Your task to perform on an android device: Open notification settings Image 0: 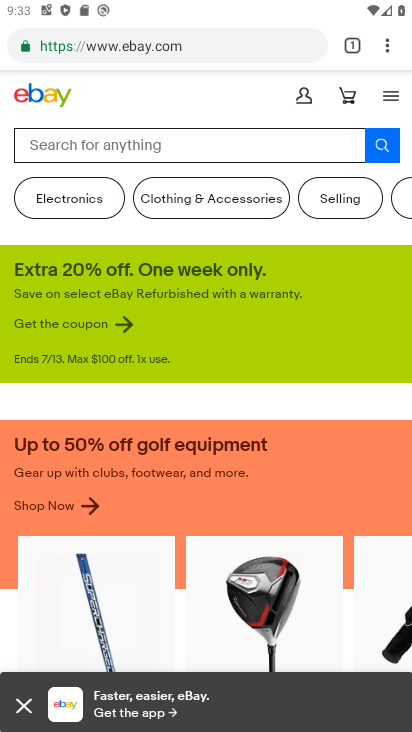
Step 0: press home button
Your task to perform on an android device: Open notification settings Image 1: 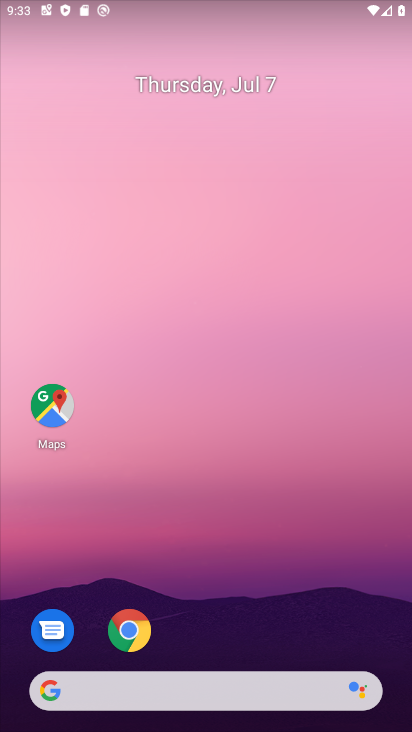
Step 1: drag from (182, 678) to (182, 38)
Your task to perform on an android device: Open notification settings Image 2: 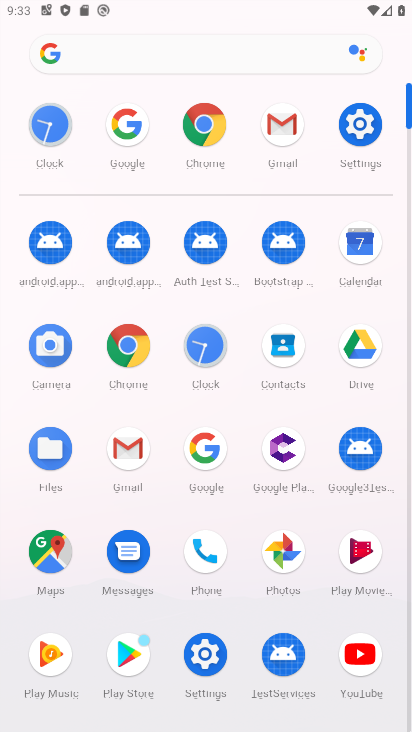
Step 2: click (357, 125)
Your task to perform on an android device: Open notification settings Image 3: 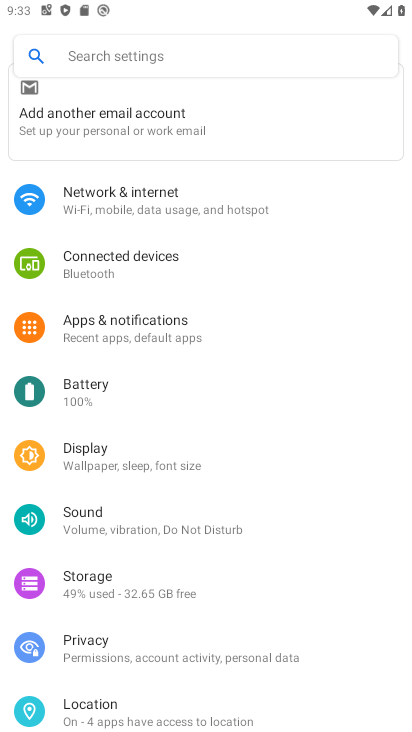
Step 3: click (101, 328)
Your task to perform on an android device: Open notification settings Image 4: 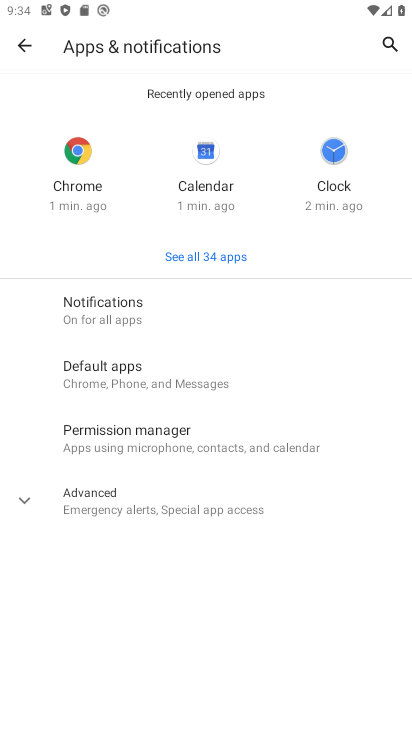
Step 4: click (68, 492)
Your task to perform on an android device: Open notification settings Image 5: 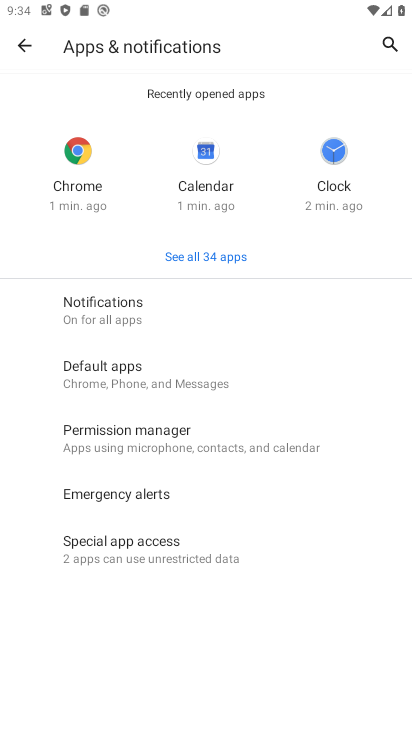
Step 5: task complete